Your task to perform on an android device: Search for vegetarian restaurants on Maps Image 0: 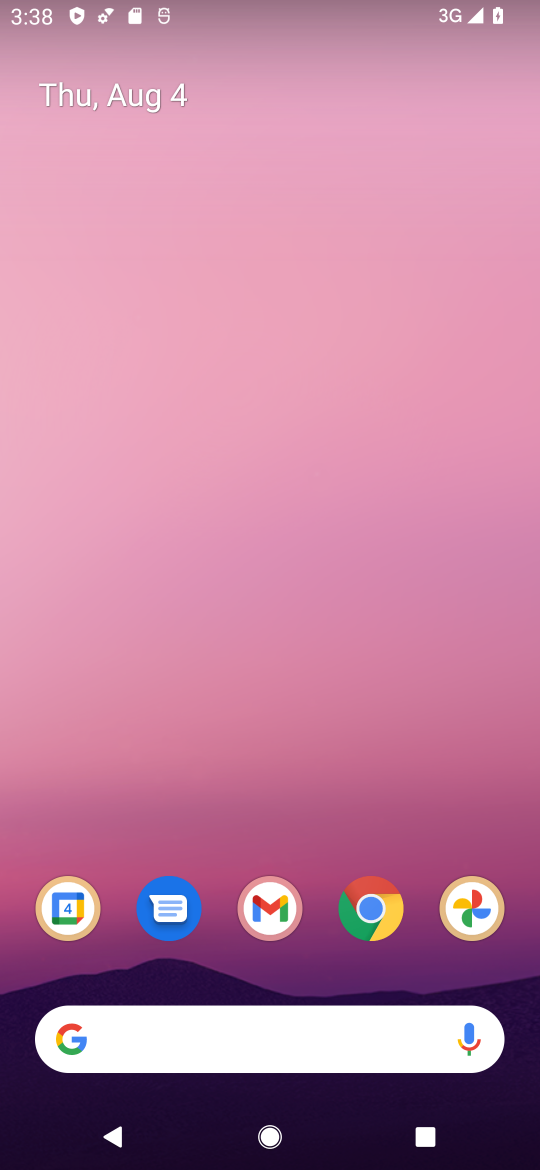
Step 0: drag from (173, 968) to (273, 1)
Your task to perform on an android device: Search for vegetarian restaurants on Maps Image 1: 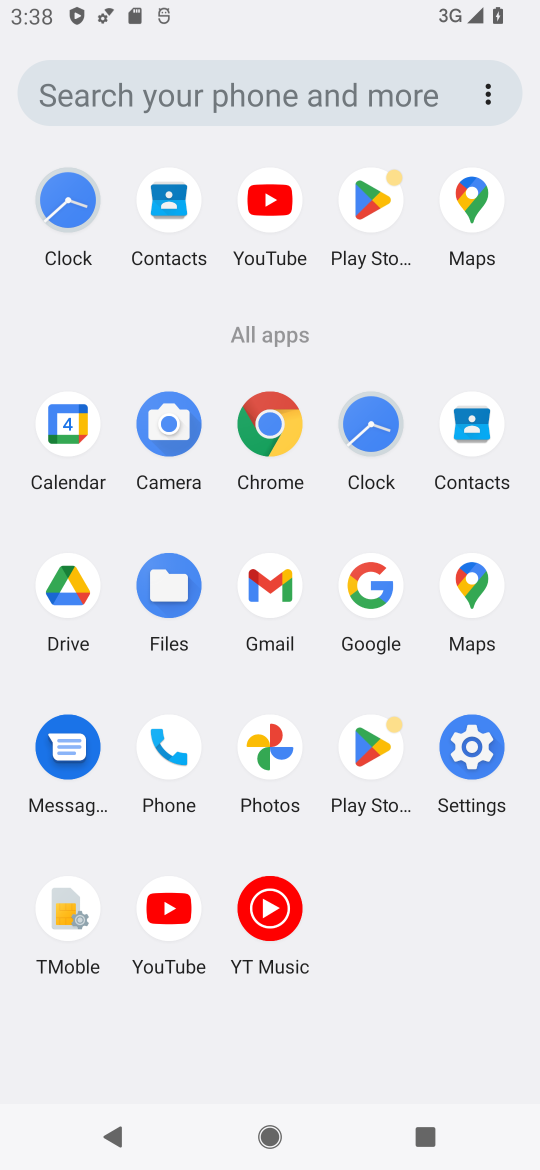
Step 1: click (482, 217)
Your task to perform on an android device: Search for vegetarian restaurants on Maps Image 2: 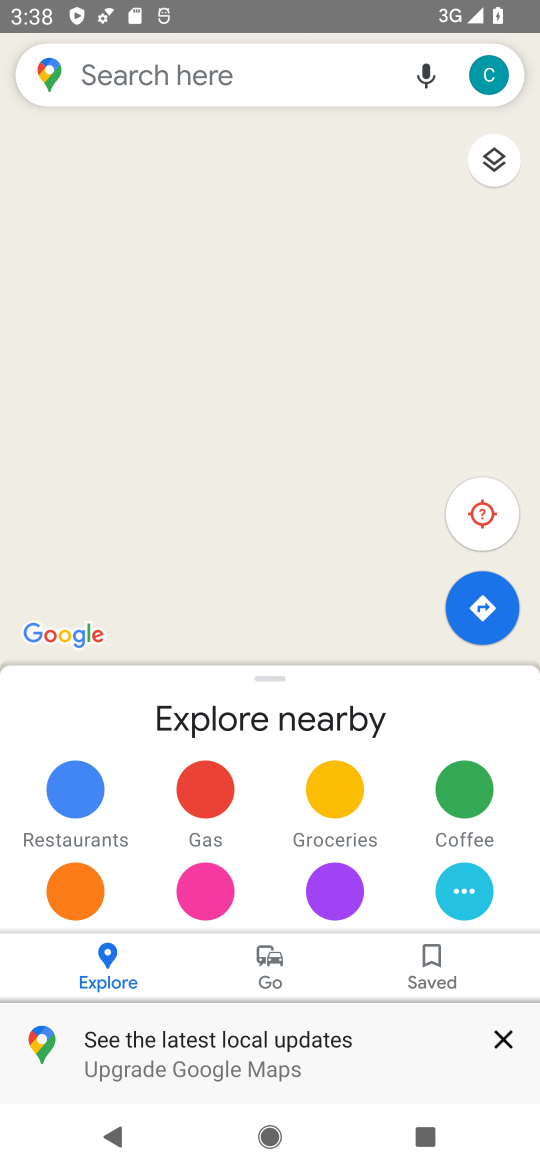
Step 2: click (183, 61)
Your task to perform on an android device: Search for vegetarian restaurants on Maps Image 3: 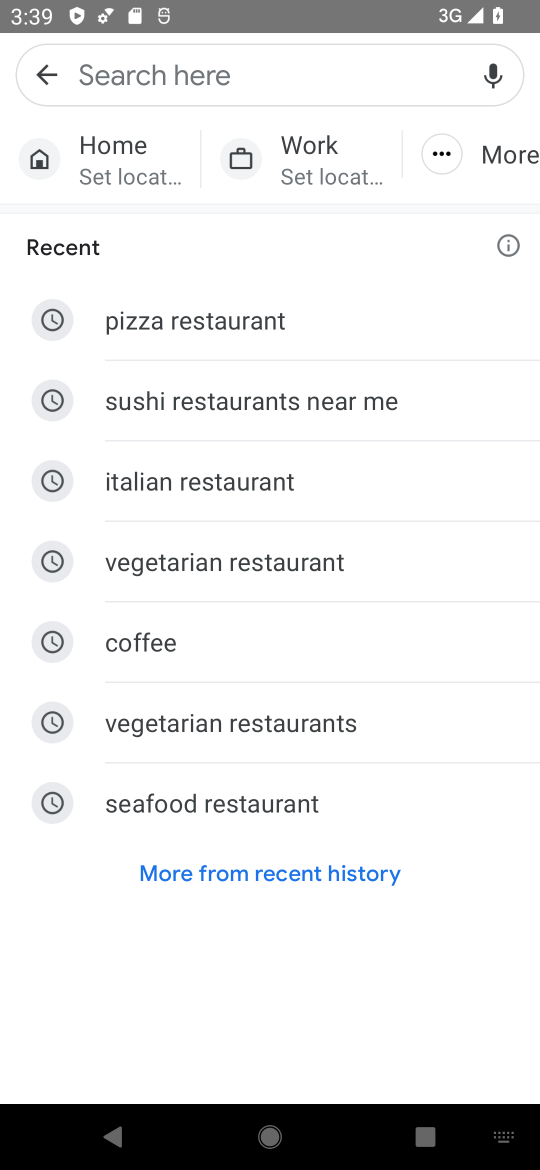
Step 3: type "vegetarian restaurants"
Your task to perform on an android device: Search for vegetarian restaurants on Maps Image 4: 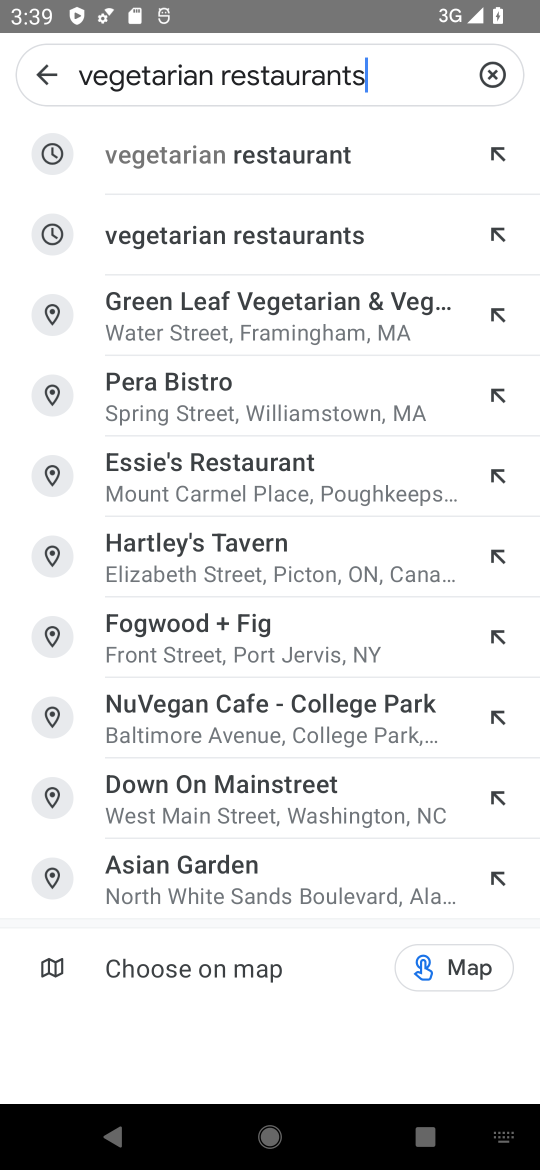
Step 4: click (238, 140)
Your task to perform on an android device: Search for vegetarian restaurants on Maps Image 5: 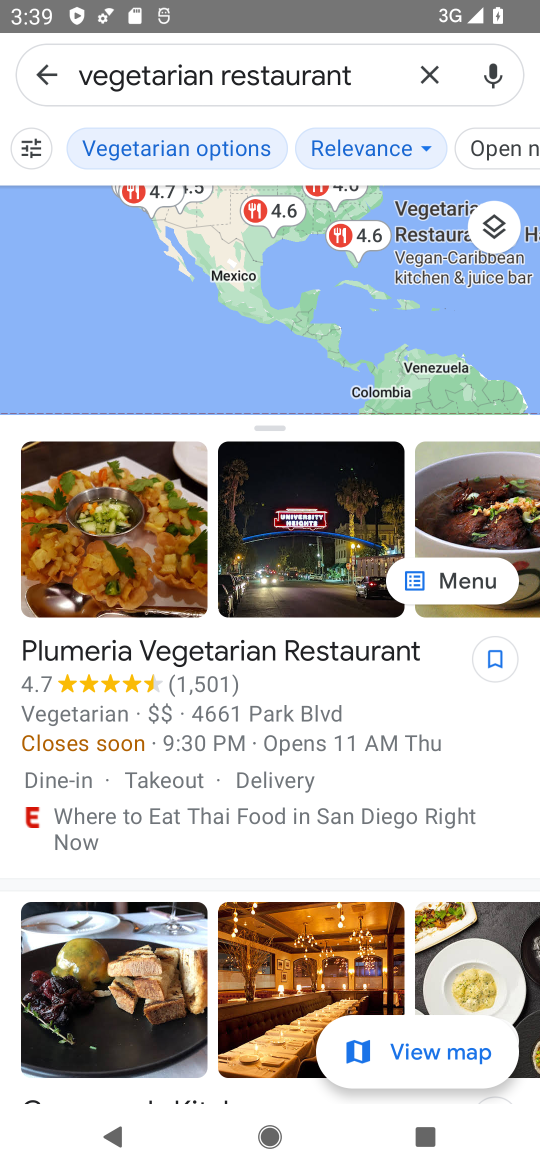
Step 5: task complete